Your task to perform on an android device: open app "DuckDuckGo Privacy Browser" (install if not already installed), go to login, and select forgot password Image 0: 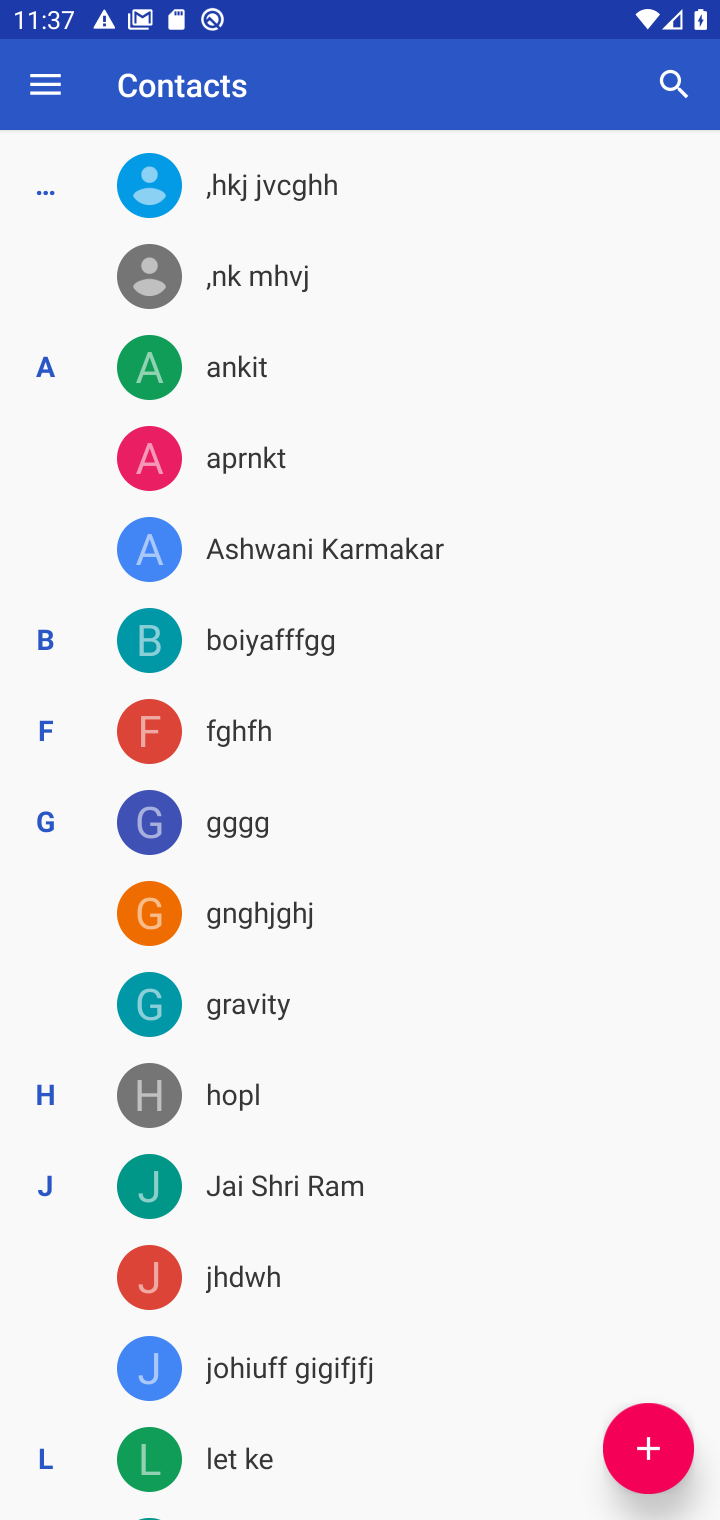
Step 0: press home button
Your task to perform on an android device: open app "DuckDuckGo Privacy Browser" (install if not already installed), go to login, and select forgot password Image 1: 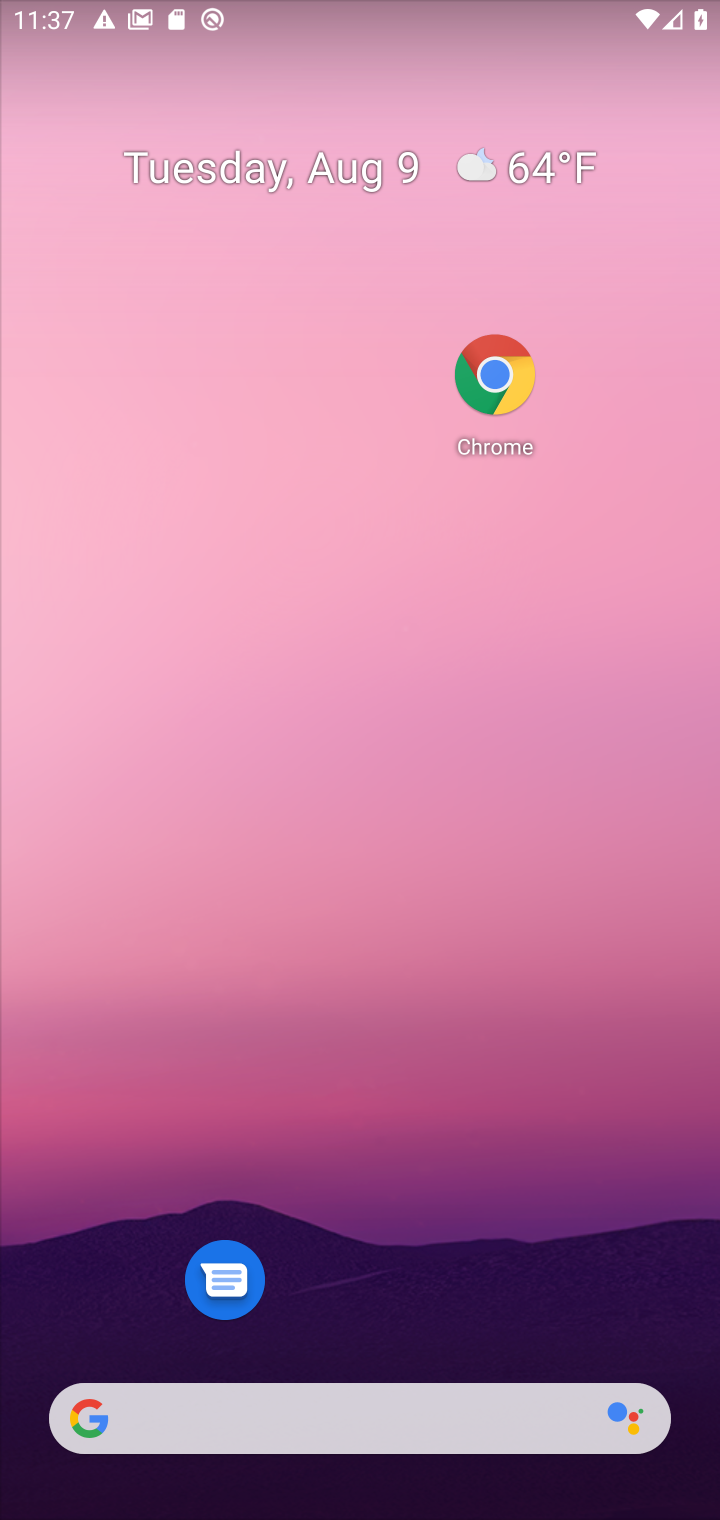
Step 1: drag from (391, 1395) to (285, 167)
Your task to perform on an android device: open app "DuckDuckGo Privacy Browser" (install if not already installed), go to login, and select forgot password Image 2: 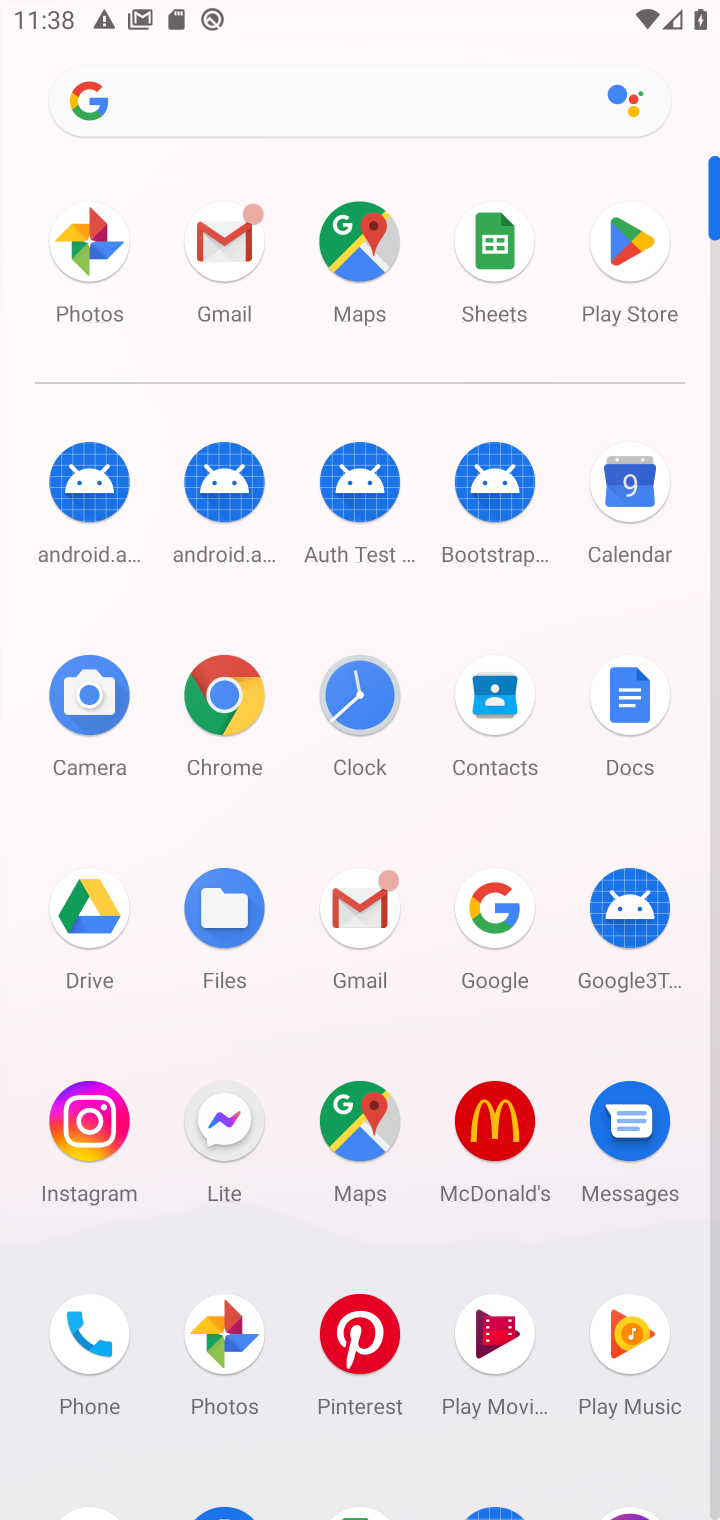
Step 2: click (611, 245)
Your task to perform on an android device: open app "DuckDuckGo Privacy Browser" (install if not already installed), go to login, and select forgot password Image 3: 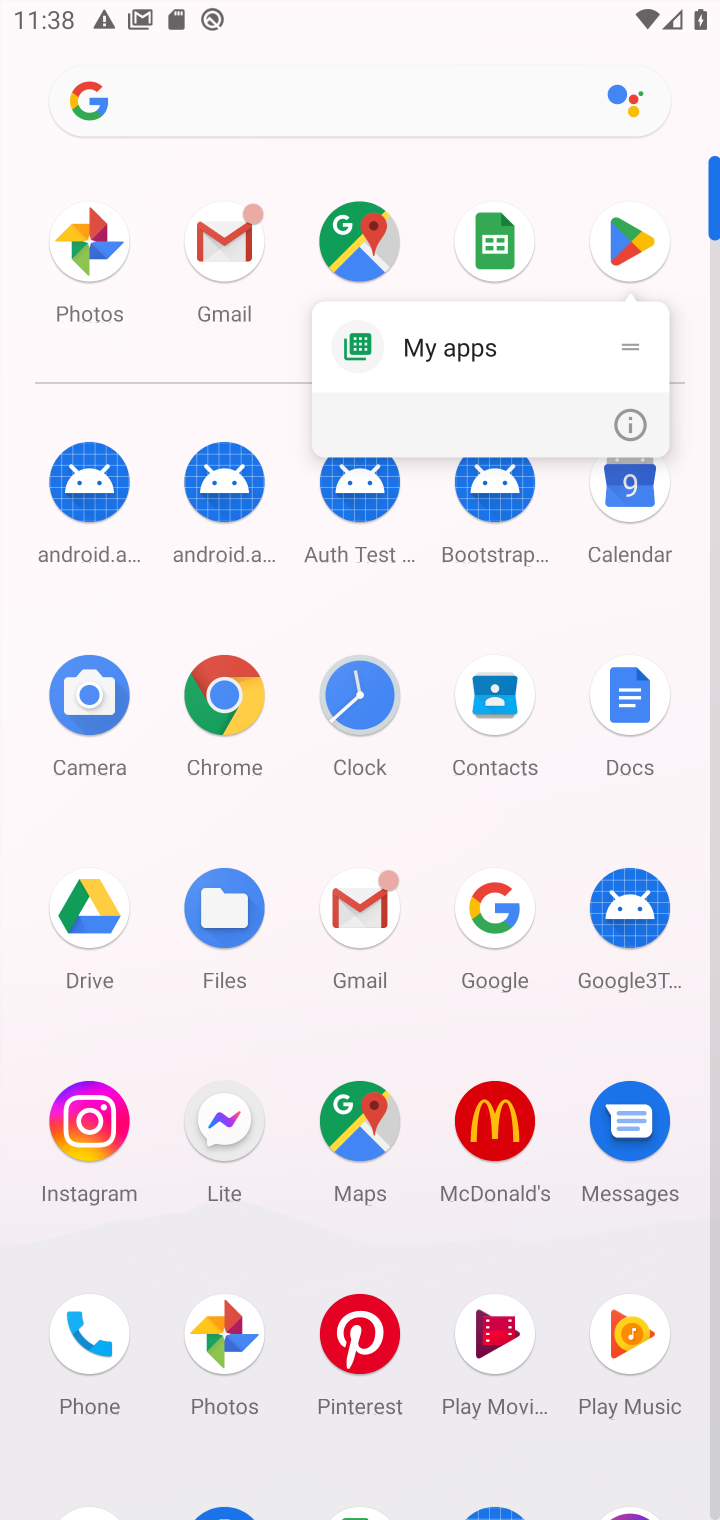
Step 3: click (615, 245)
Your task to perform on an android device: open app "DuckDuckGo Privacy Browser" (install if not already installed), go to login, and select forgot password Image 4: 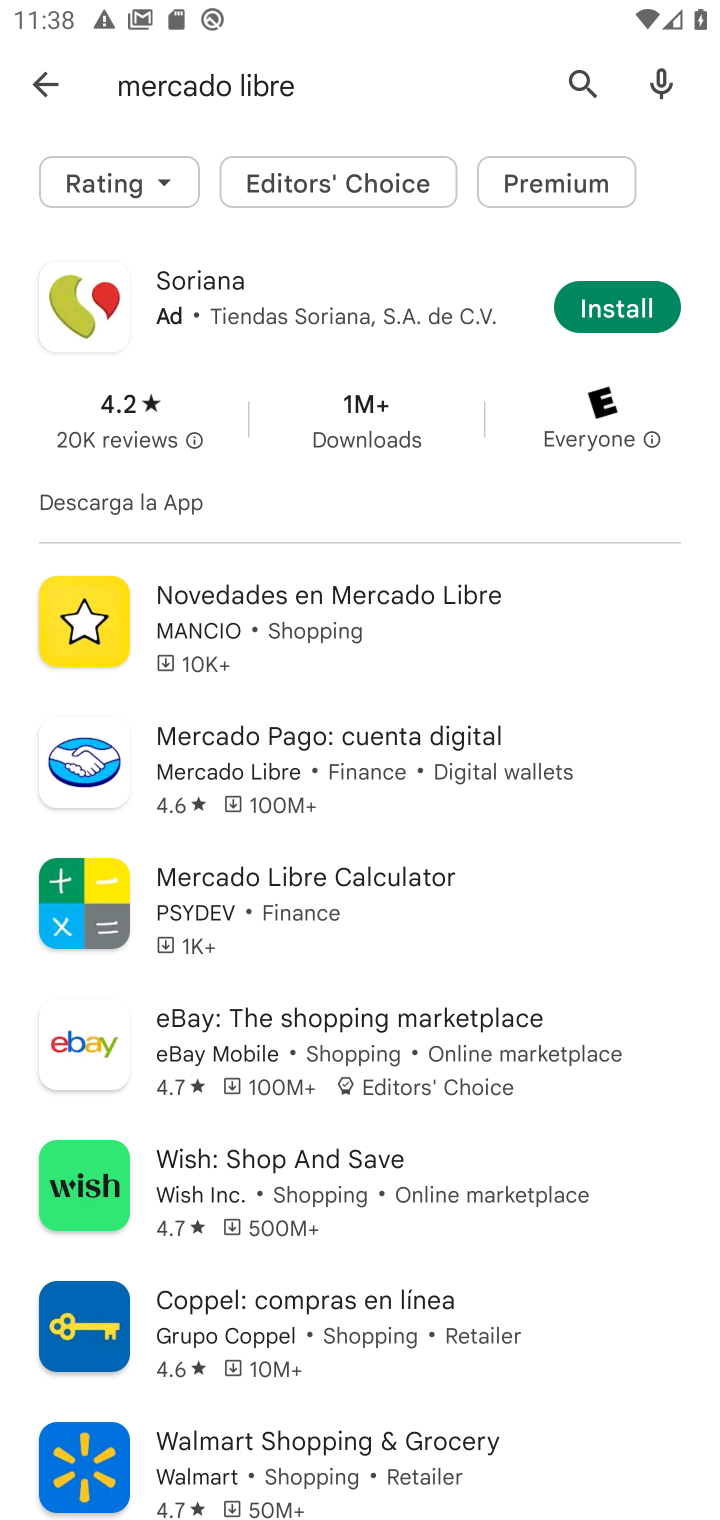
Step 4: click (106, 83)
Your task to perform on an android device: open app "DuckDuckGo Privacy Browser" (install if not already installed), go to login, and select forgot password Image 5: 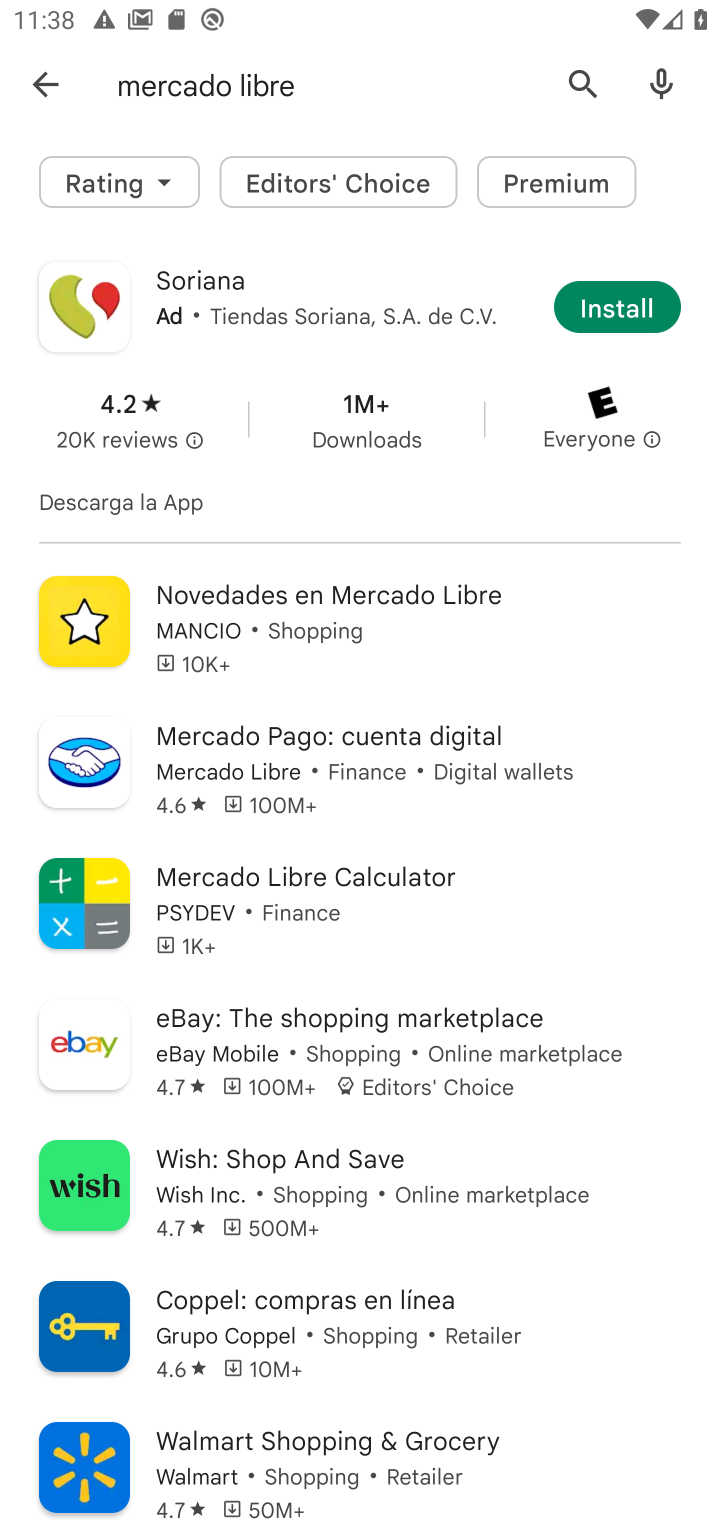
Step 5: click (36, 91)
Your task to perform on an android device: open app "DuckDuckGo Privacy Browser" (install if not already installed), go to login, and select forgot password Image 6: 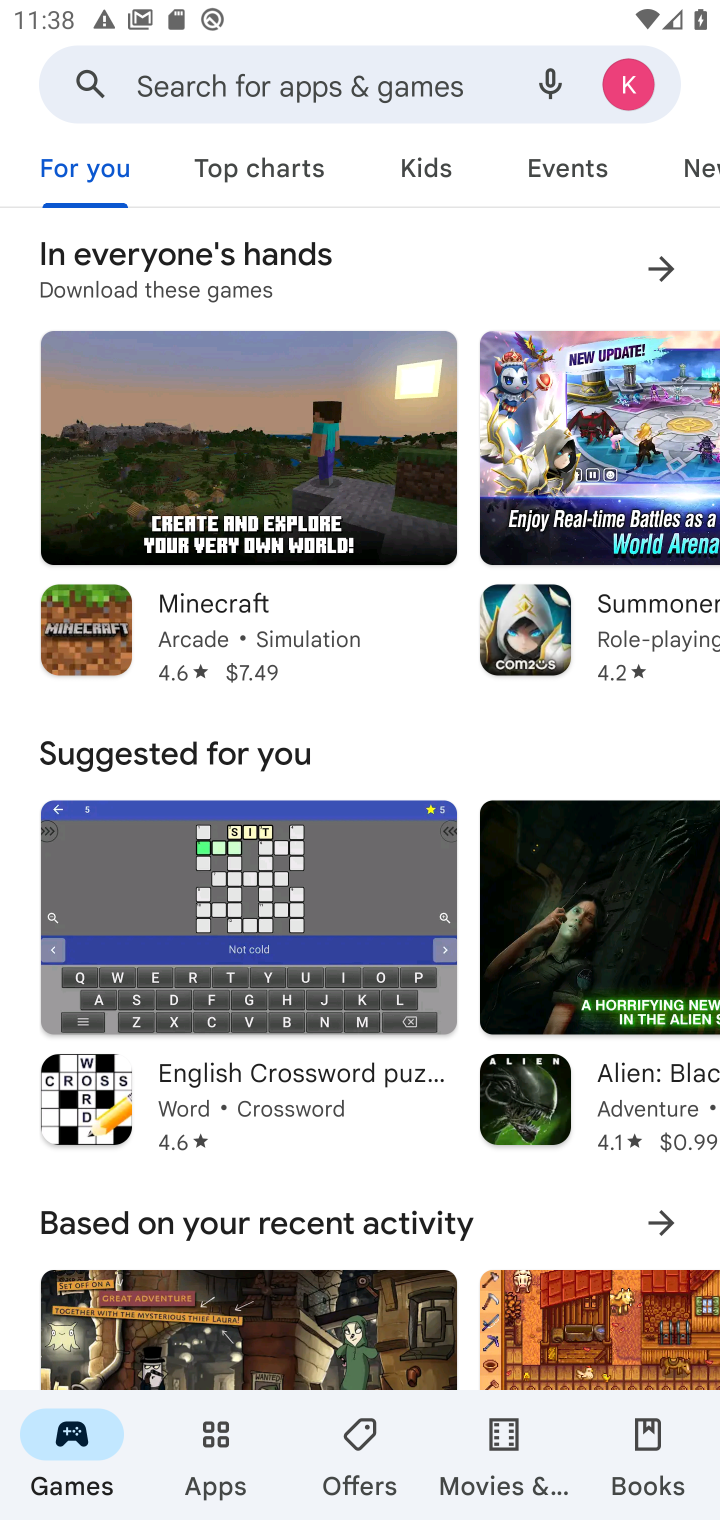
Step 6: click (385, 83)
Your task to perform on an android device: open app "DuckDuckGo Privacy Browser" (install if not already installed), go to login, and select forgot password Image 7: 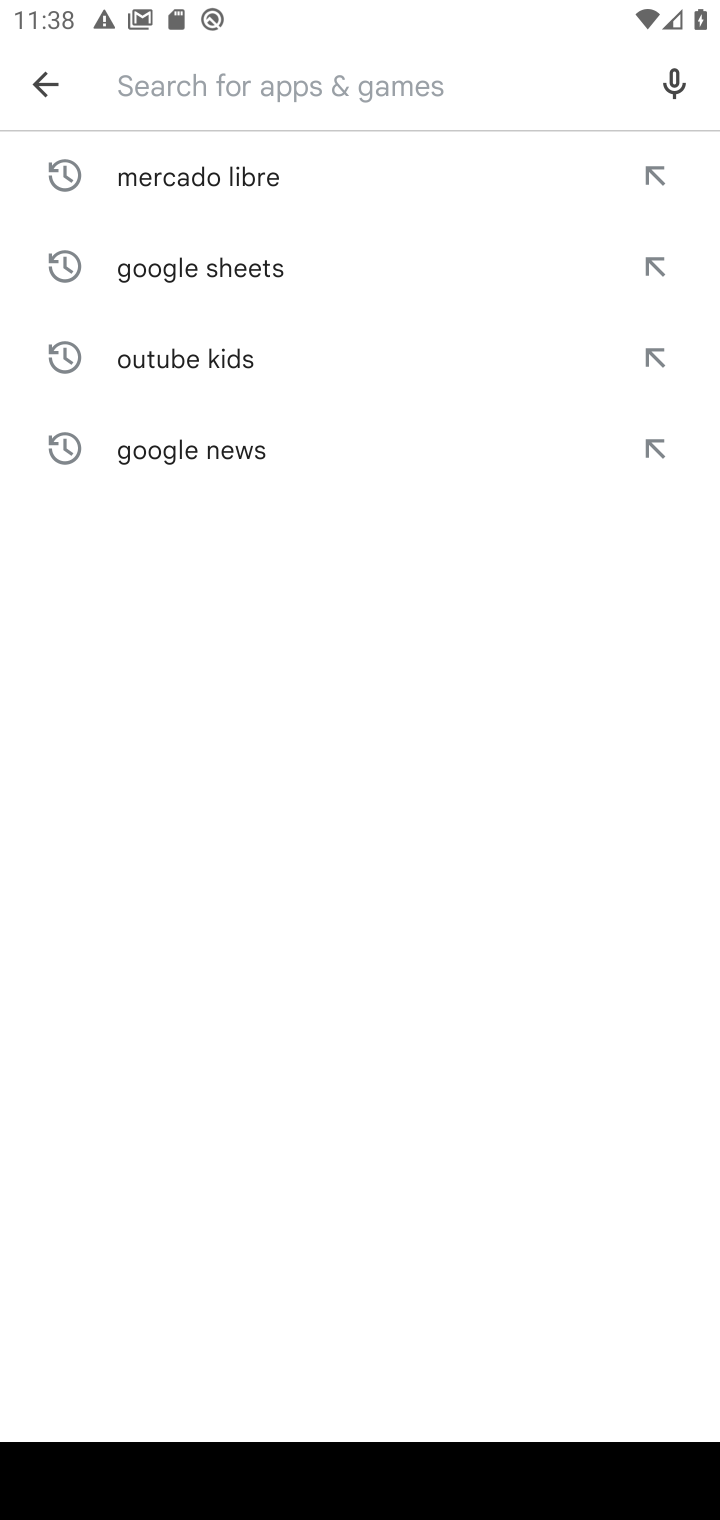
Step 7: type "DuckDuckGo Privacy Browse"
Your task to perform on an android device: open app "DuckDuckGo Privacy Browser" (install if not already installed), go to login, and select forgot password Image 8: 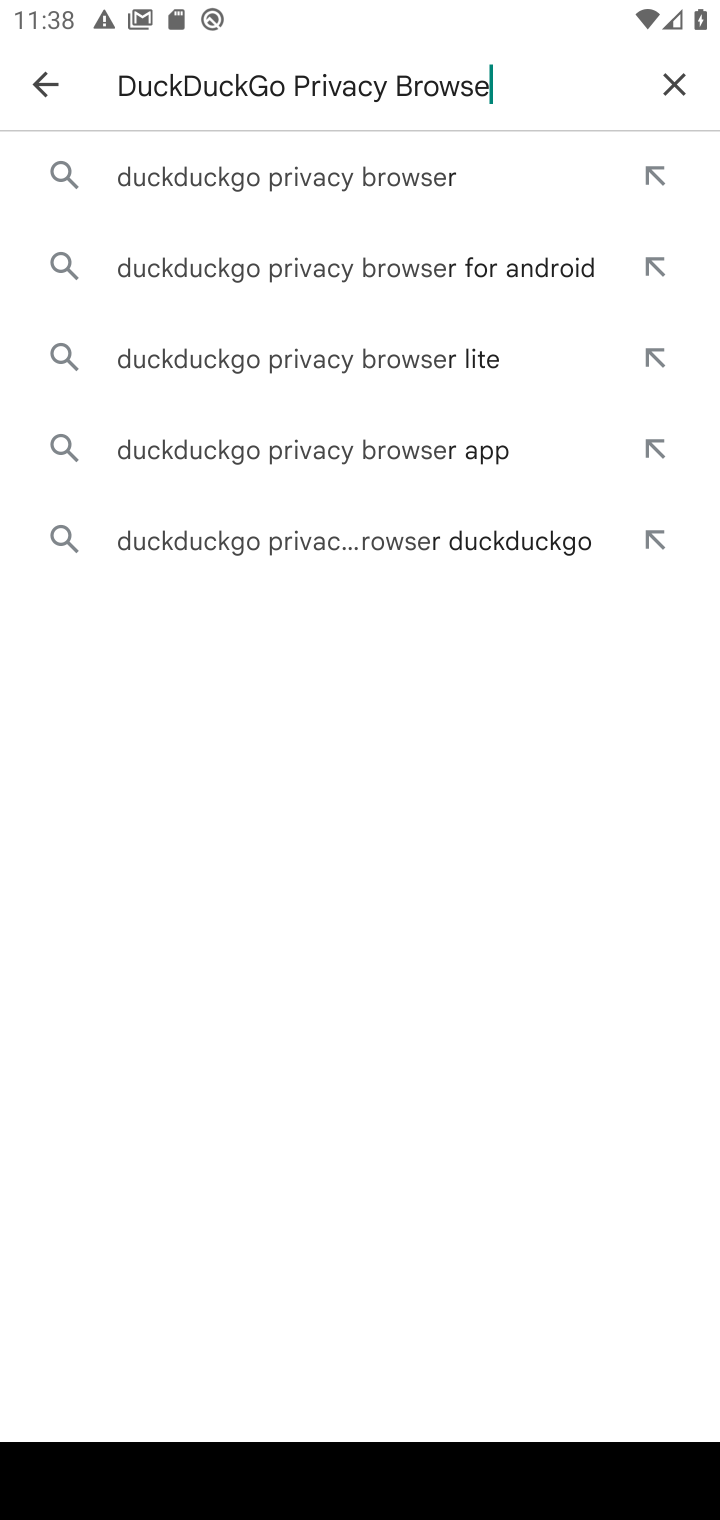
Step 8: click (94, 181)
Your task to perform on an android device: open app "DuckDuckGo Privacy Browser" (install if not already installed), go to login, and select forgot password Image 9: 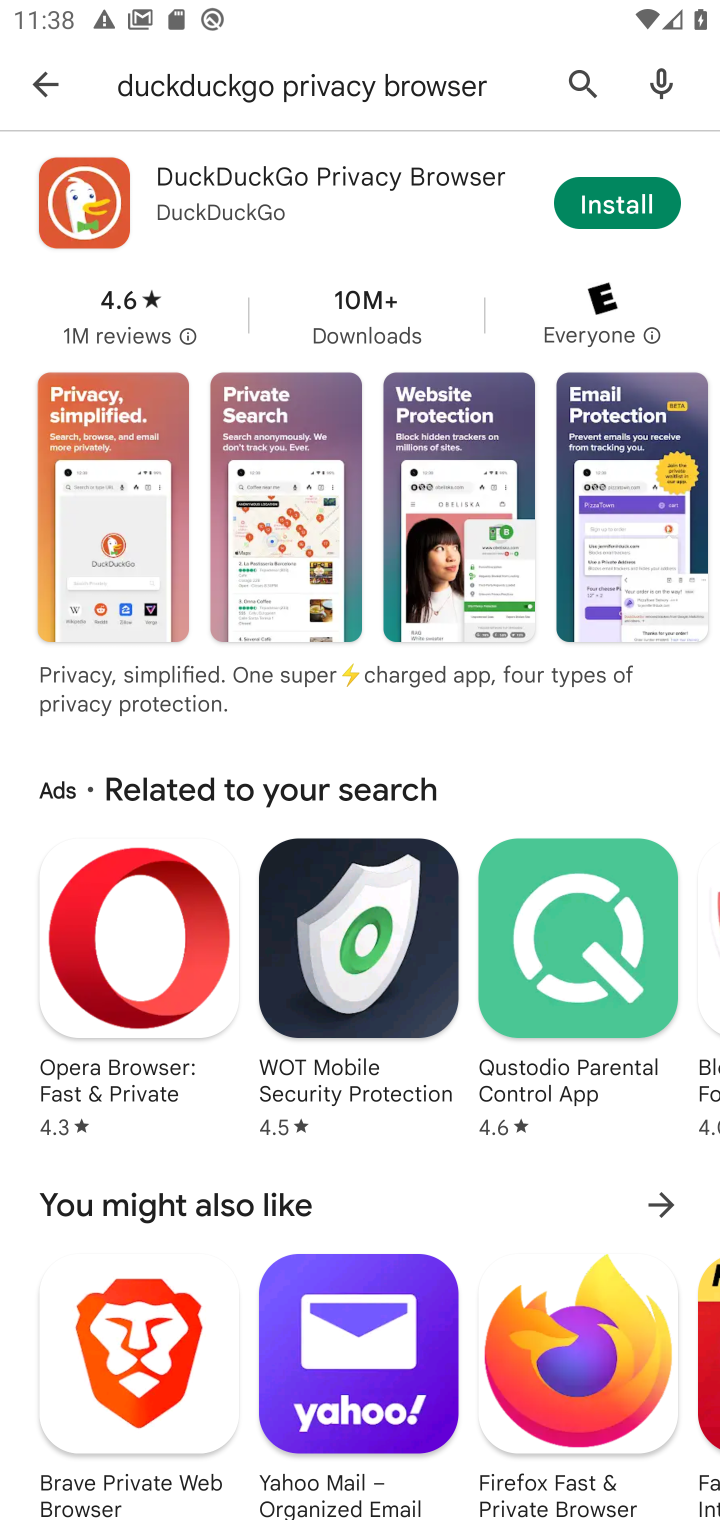
Step 9: click (591, 215)
Your task to perform on an android device: open app "DuckDuckGo Privacy Browser" (install if not already installed), go to login, and select forgot password Image 10: 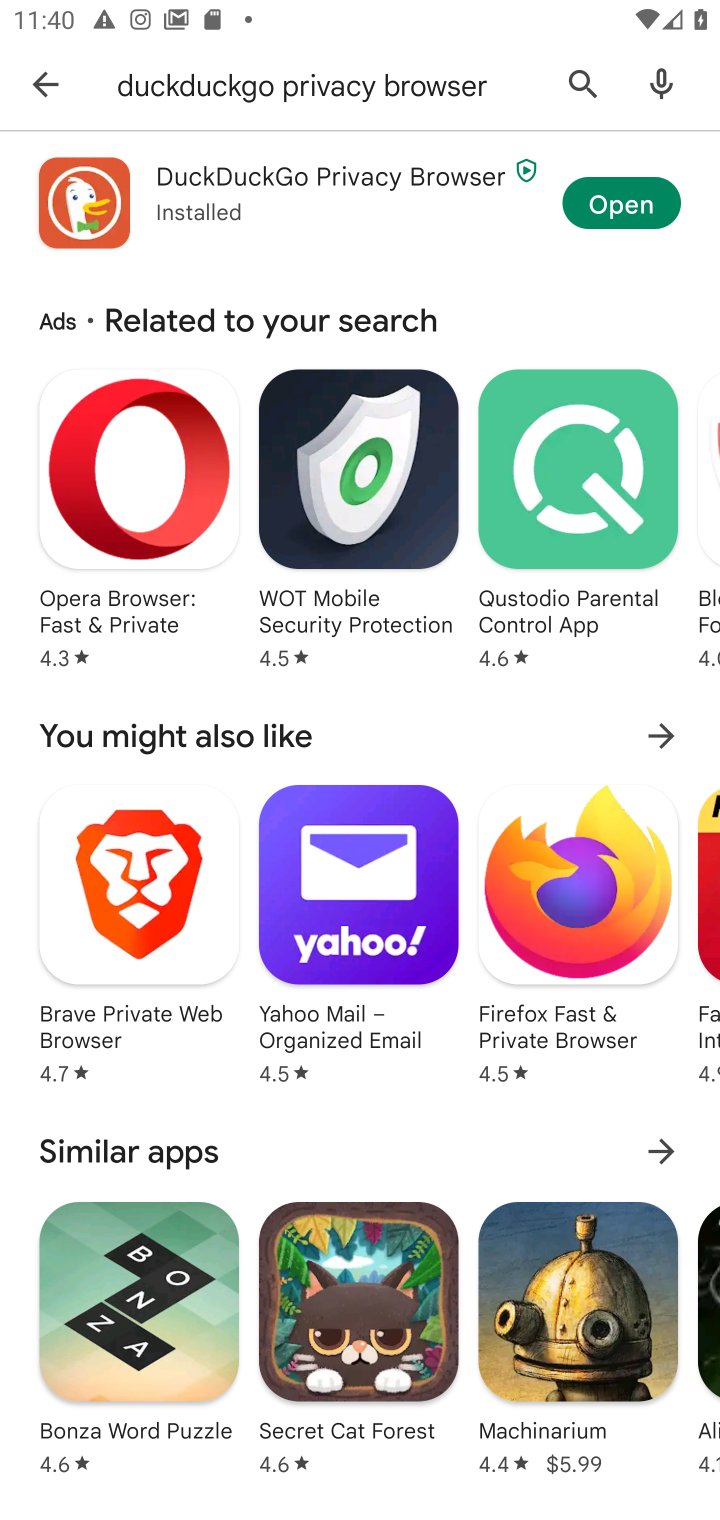
Step 10: click (591, 215)
Your task to perform on an android device: open app "DuckDuckGo Privacy Browser" (install if not already installed), go to login, and select forgot password Image 11: 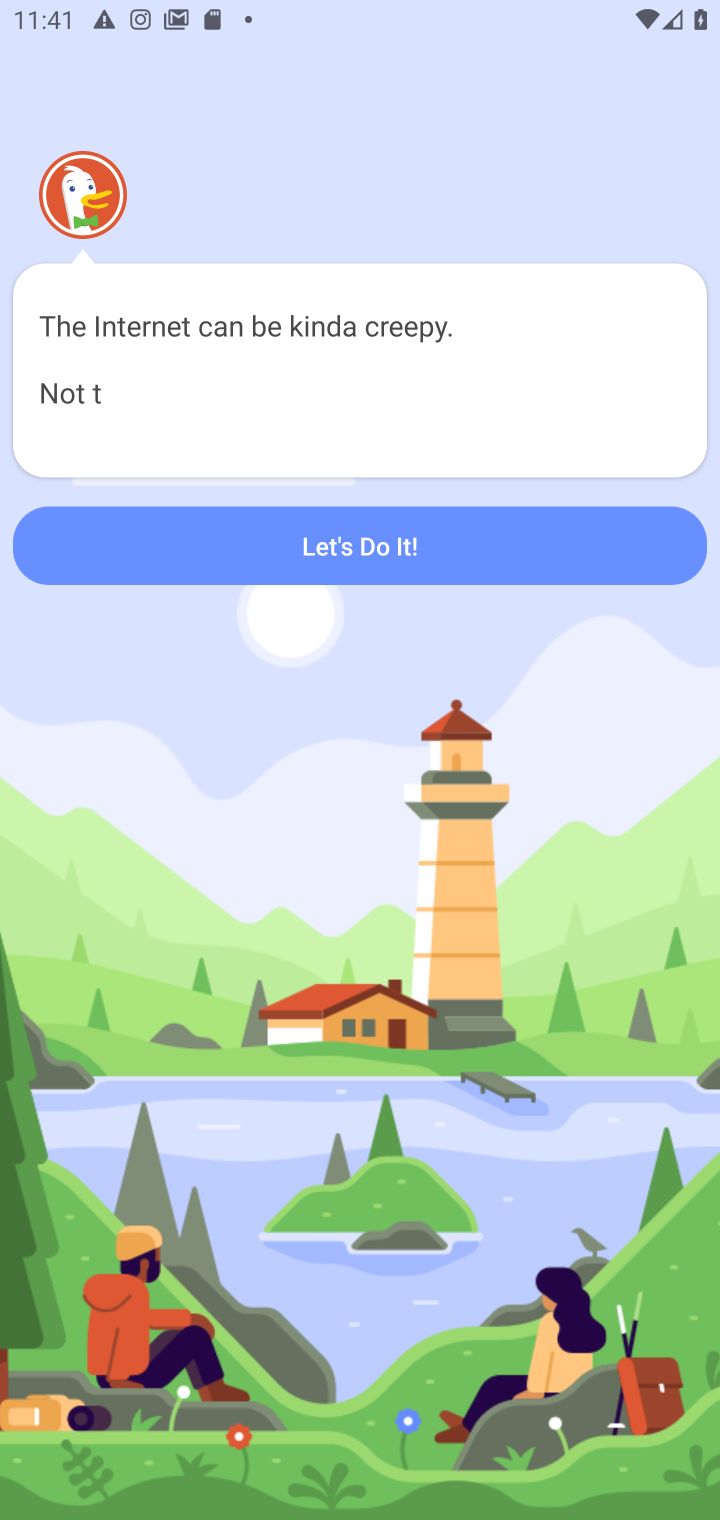
Step 11: click (412, 565)
Your task to perform on an android device: open app "DuckDuckGo Privacy Browser" (install if not already installed), go to login, and select forgot password Image 12: 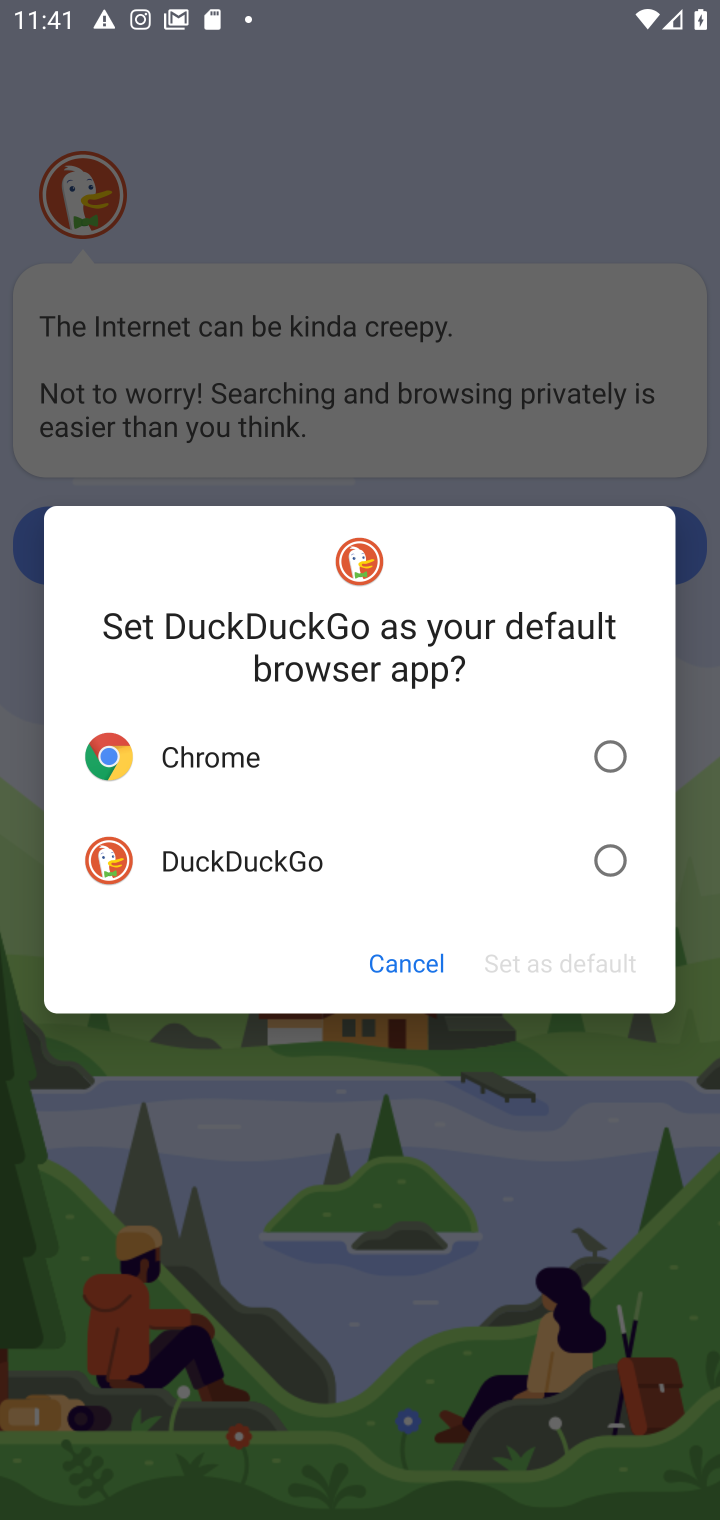
Step 12: click (614, 855)
Your task to perform on an android device: open app "DuckDuckGo Privacy Browser" (install if not already installed), go to login, and select forgot password Image 13: 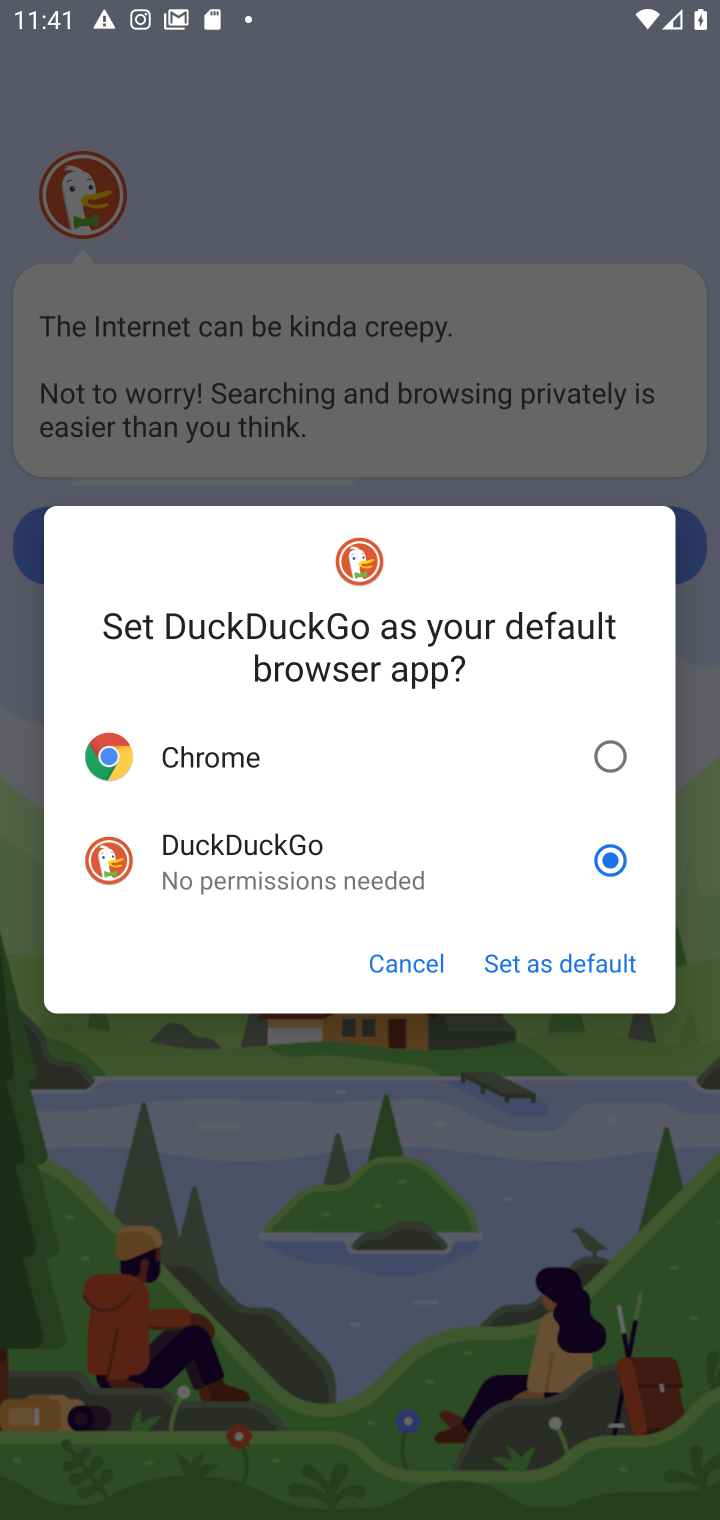
Step 13: click (569, 957)
Your task to perform on an android device: open app "DuckDuckGo Privacy Browser" (install if not already installed), go to login, and select forgot password Image 14: 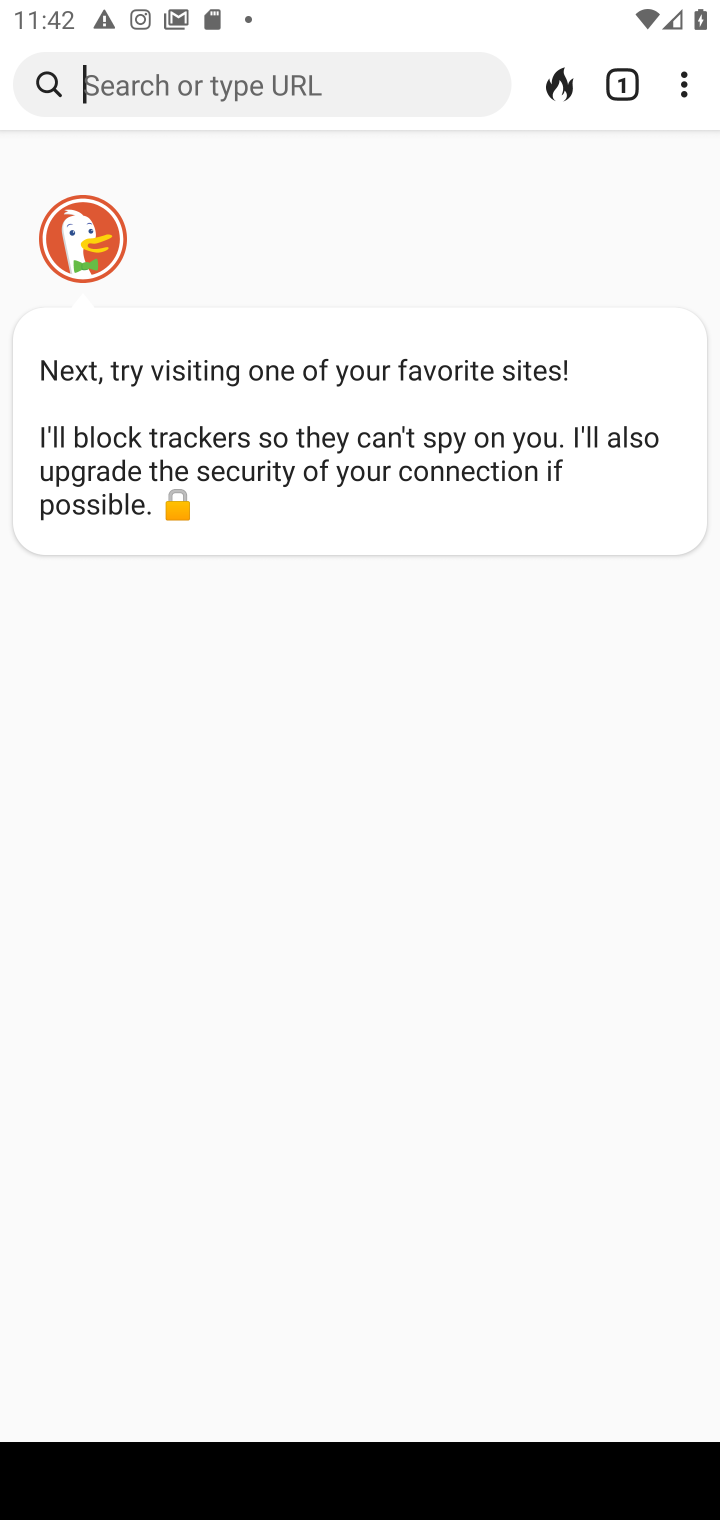
Step 14: press home button
Your task to perform on an android device: open app "DuckDuckGo Privacy Browser" (install if not already installed), go to login, and select forgot password Image 15: 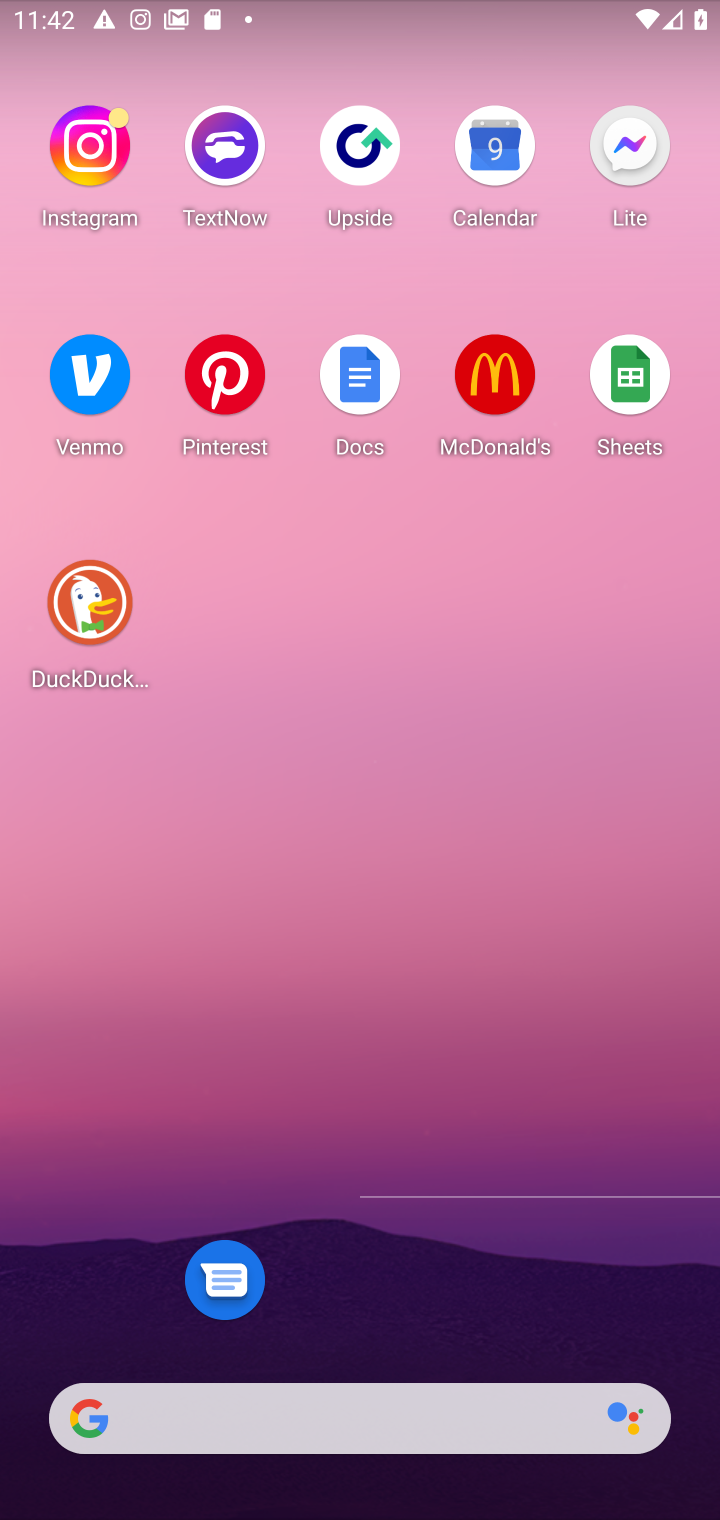
Step 15: drag from (337, 1352) to (519, 14)
Your task to perform on an android device: open app "DuckDuckGo Privacy Browser" (install if not already installed), go to login, and select forgot password Image 16: 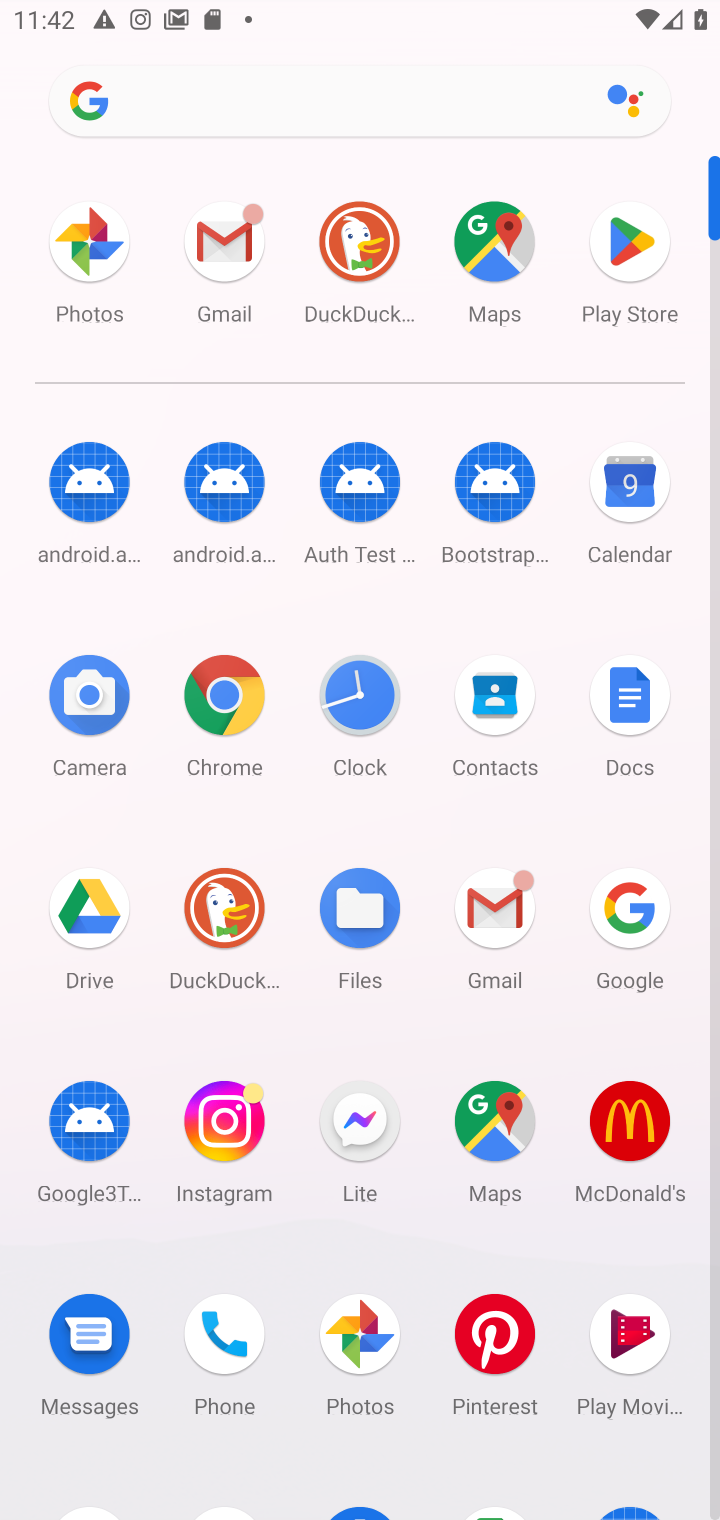
Step 16: click (351, 237)
Your task to perform on an android device: open app "DuckDuckGo Privacy Browser" (install if not already installed), go to login, and select forgot password Image 17: 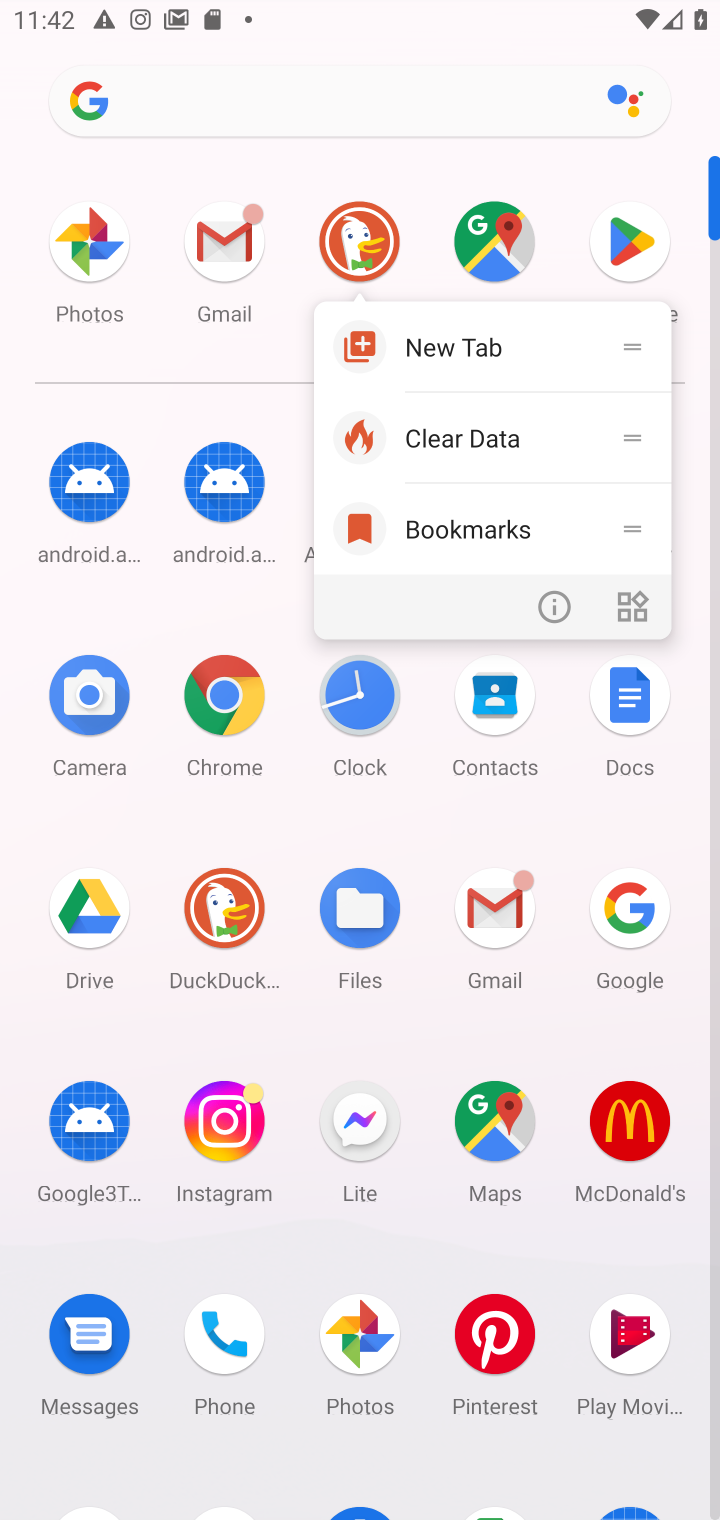
Step 17: click (373, 255)
Your task to perform on an android device: open app "DuckDuckGo Privacy Browser" (install if not already installed), go to login, and select forgot password Image 18: 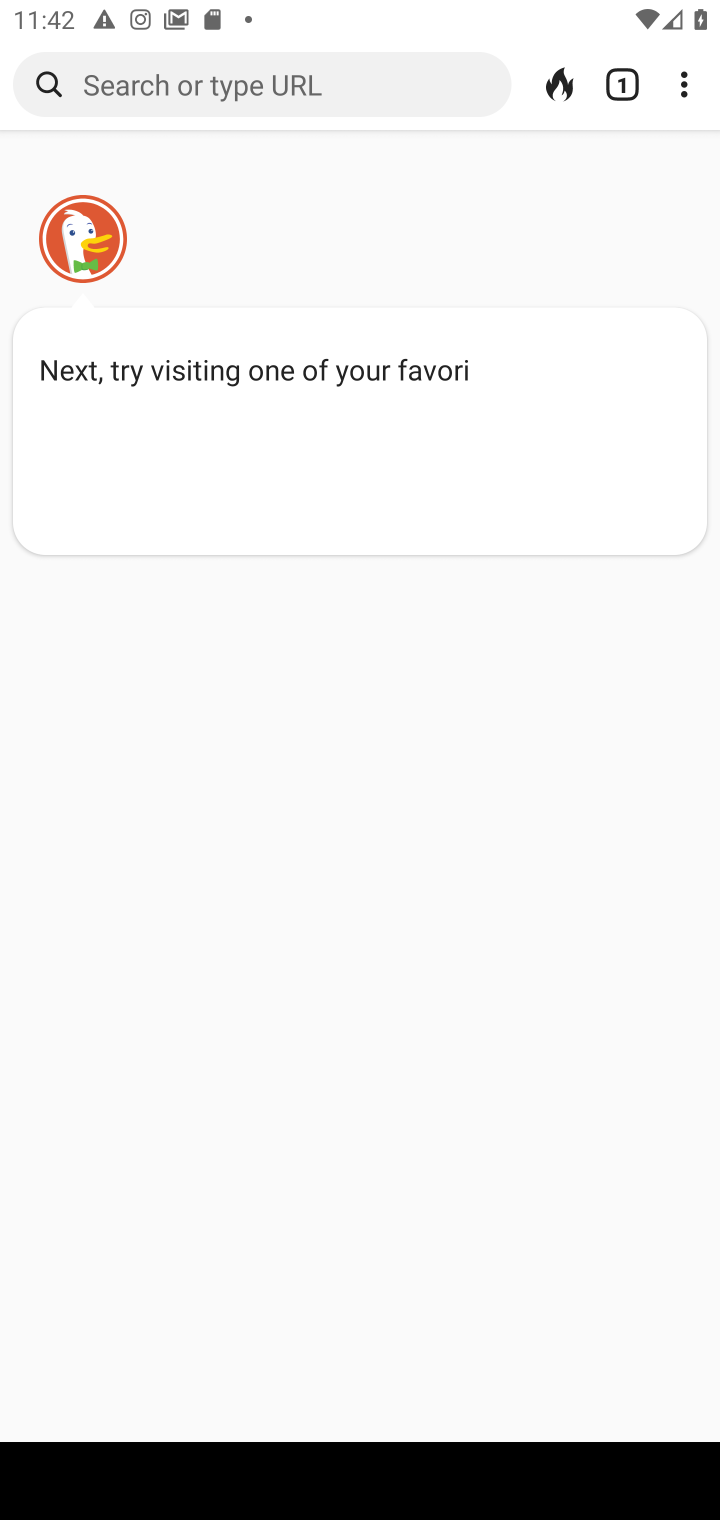
Step 18: task complete